Your task to perform on an android device: Open notification settings Image 0: 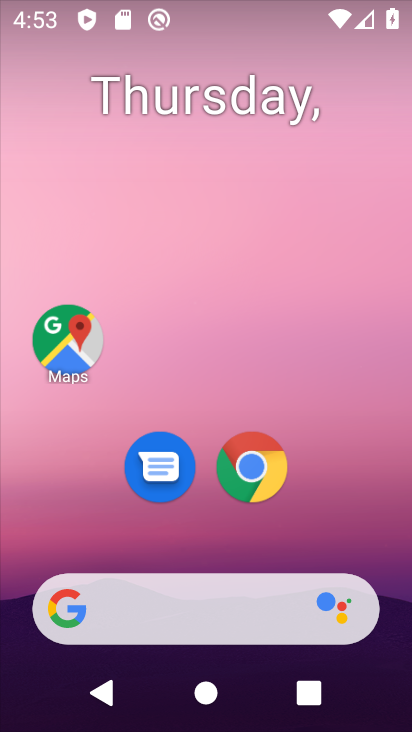
Step 0: drag from (348, 517) to (289, 18)
Your task to perform on an android device: Open notification settings Image 1: 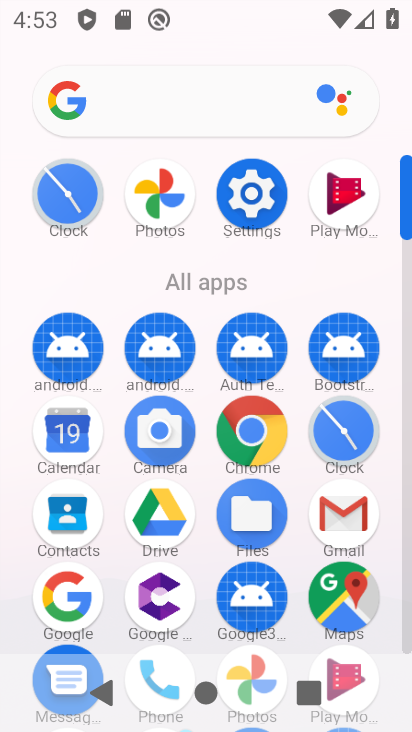
Step 1: click (252, 176)
Your task to perform on an android device: Open notification settings Image 2: 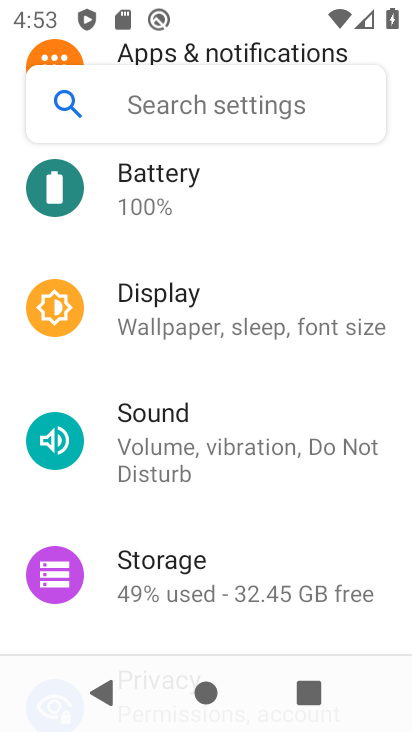
Step 2: drag from (300, 198) to (309, 692)
Your task to perform on an android device: Open notification settings Image 3: 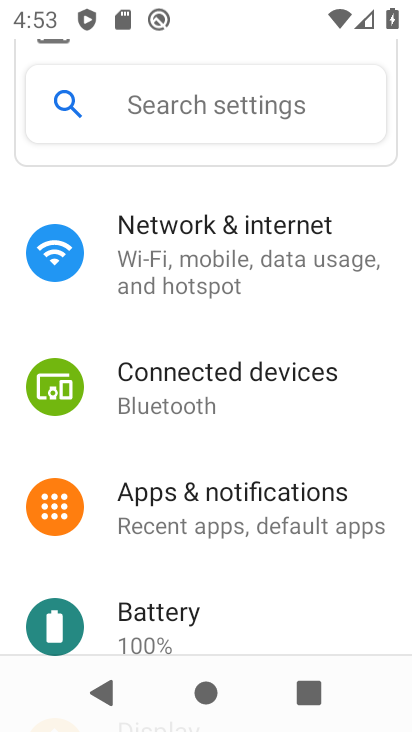
Step 3: click (269, 516)
Your task to perform on an android device: Open notification settings Image 4: 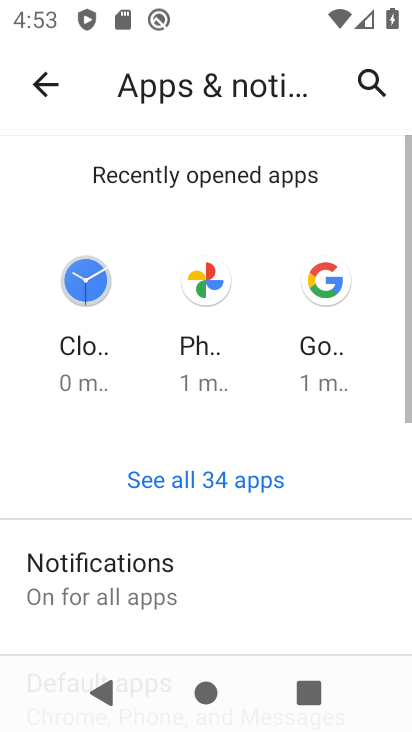
Step 4: click (257, 566)
Your task to perform on an android device: Open notification settings Image 5: 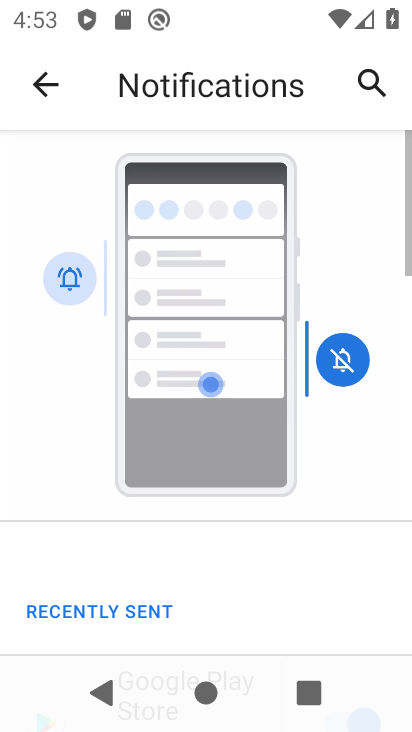
Step 5: task complete